Your task to perform on an android device: Do I have any events tomorrow? Image 0: 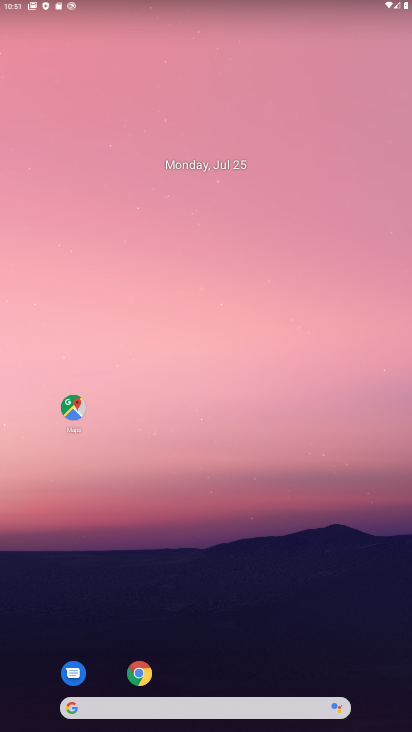
Step 0: drag from (262, 645) to (261, 31)
Your task to perform on an android device: Do I have any events tomorrow? Image 1: 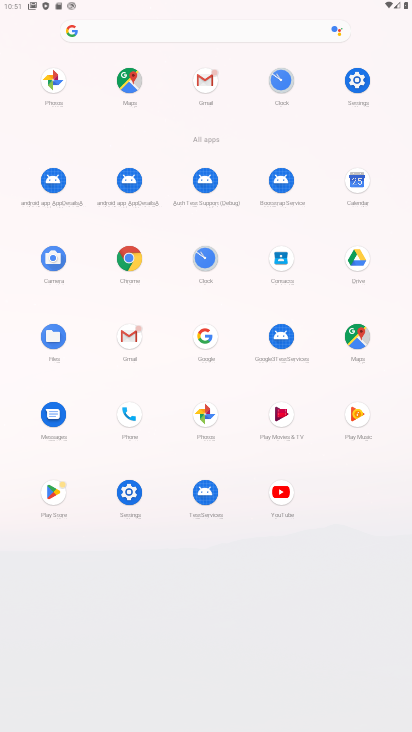
Step 1: click (354, 185)
Your task to perform on an android device: Do I have any events tomorrow? Image 2: 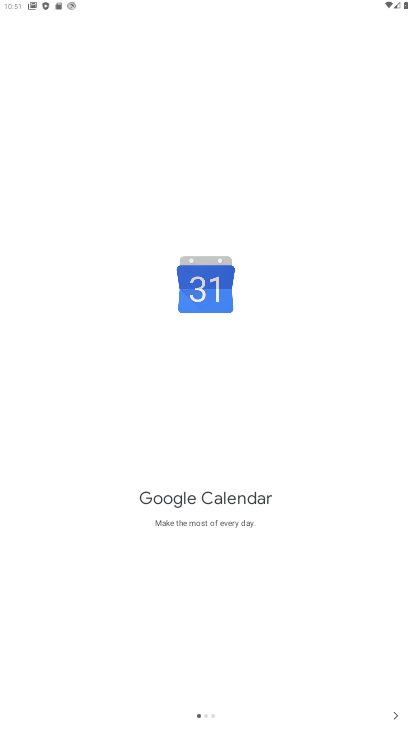
Step 2: click (395, 713)
Your task to perform on an android device: Do I have any events tomorrow? Image 3: 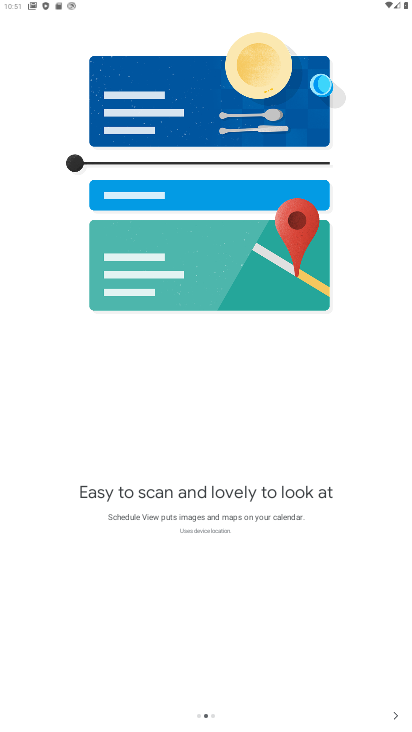
Step 3: click (395, 713)
Your task to perform on an android device: Do I have any events tomorrow? Image 4: 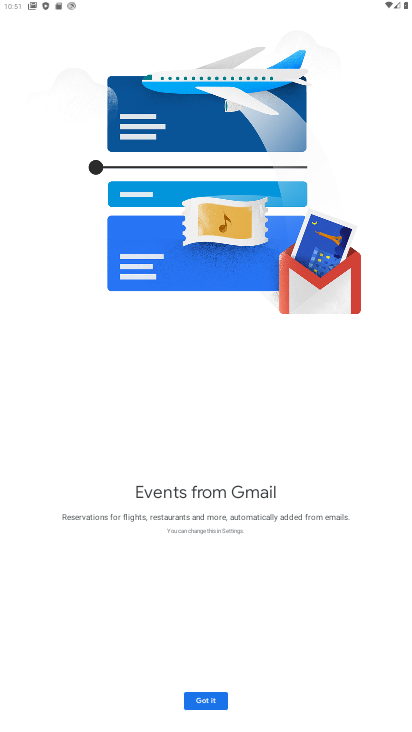
Step 4: click (199, 701)
Your task to perform on an android device: Do I have any events tomorrow? Image 5: 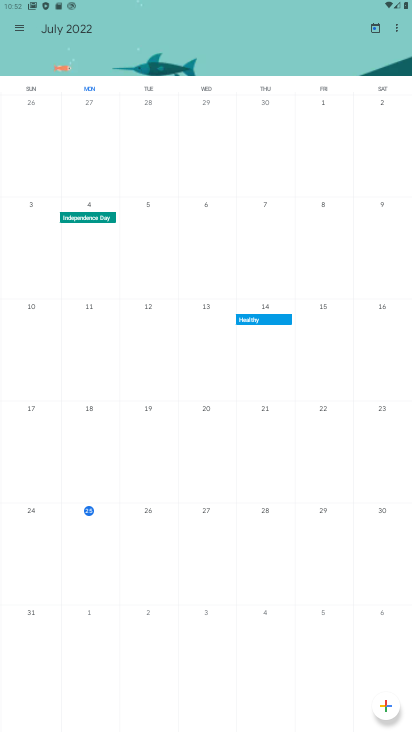
Step 5: click (161, 516)
Your task to perform on an android device: Do I have any events tomorrow? Image 6: 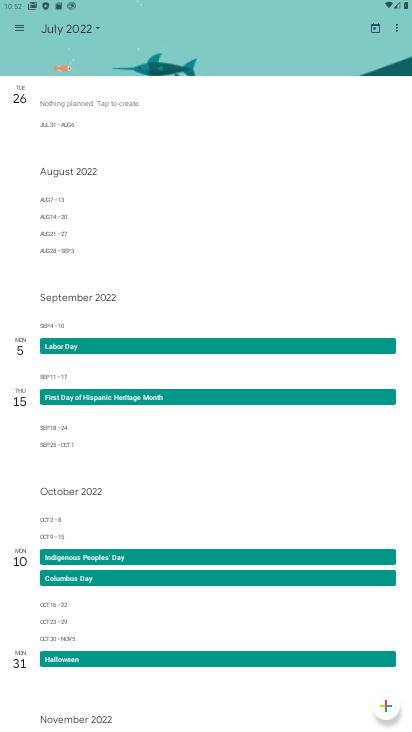
Step 6: task complete